Your task to perform on an android device: Show me recent news Image 0: 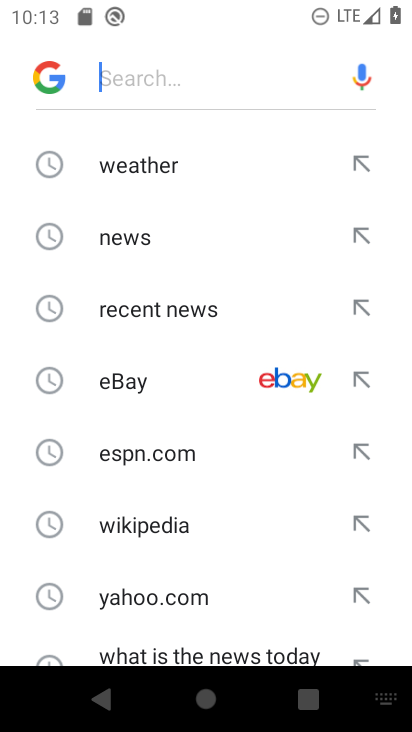
Step 0: click (169, 318)
Your task to perform on an android device: Show me recent news Image 1: 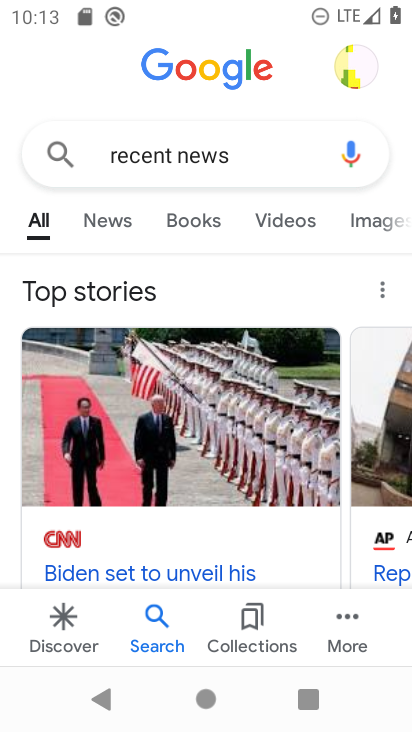
Step 1: task complete